Your task to perform on an android device: turn off notifications settings in the gmail app Image 0: 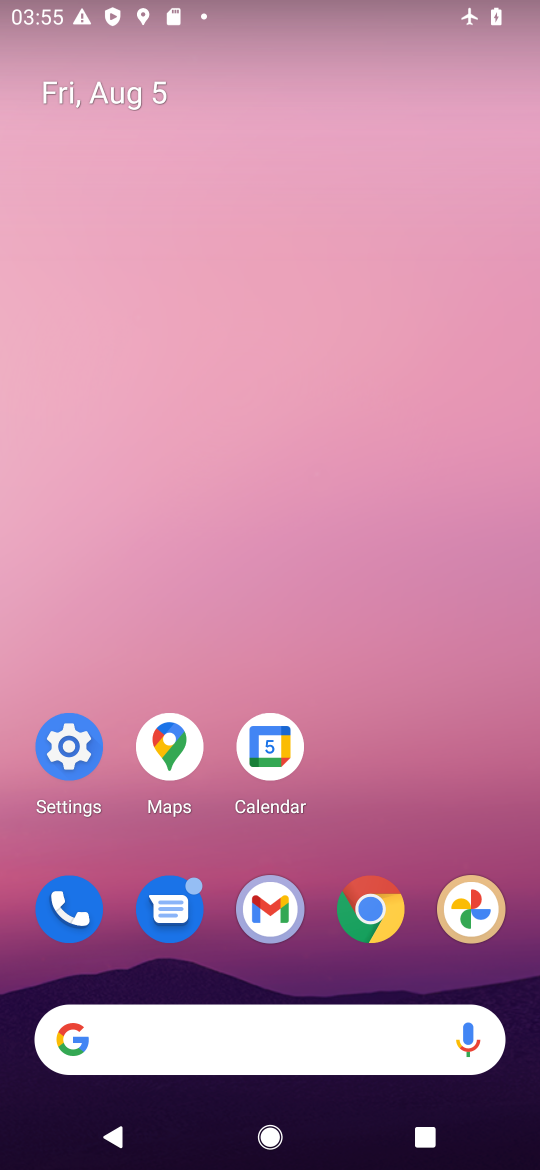
Step 0: click (272, 911)
Your task to perform on an android device: turn off notifications settings in the gmail app Image 1: 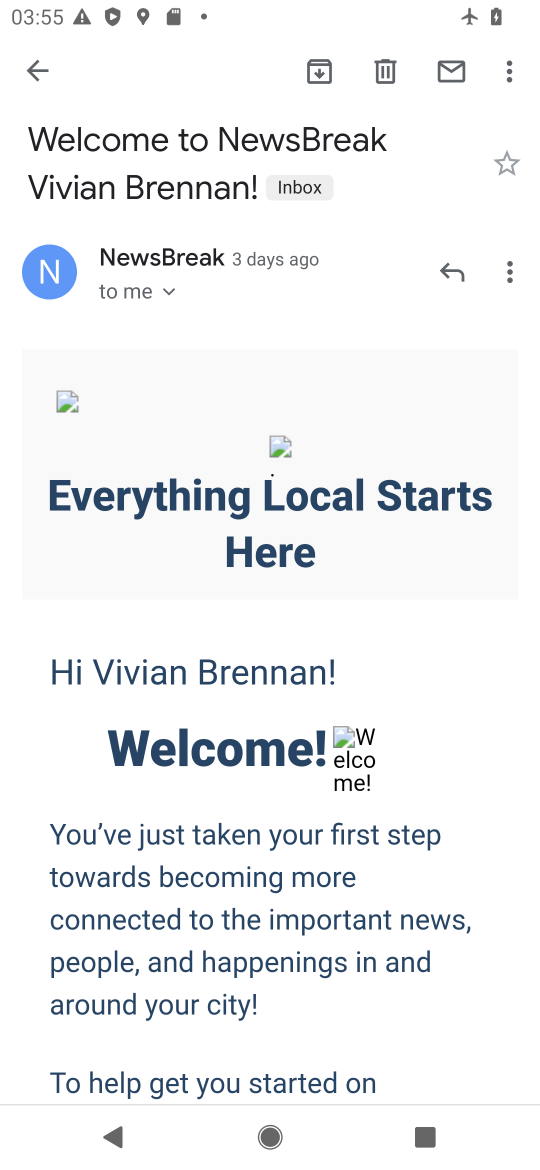
Step 1: click (33, 68)
Your task to perform on an android device: turn off notifications settings in the gmail app Image 2: 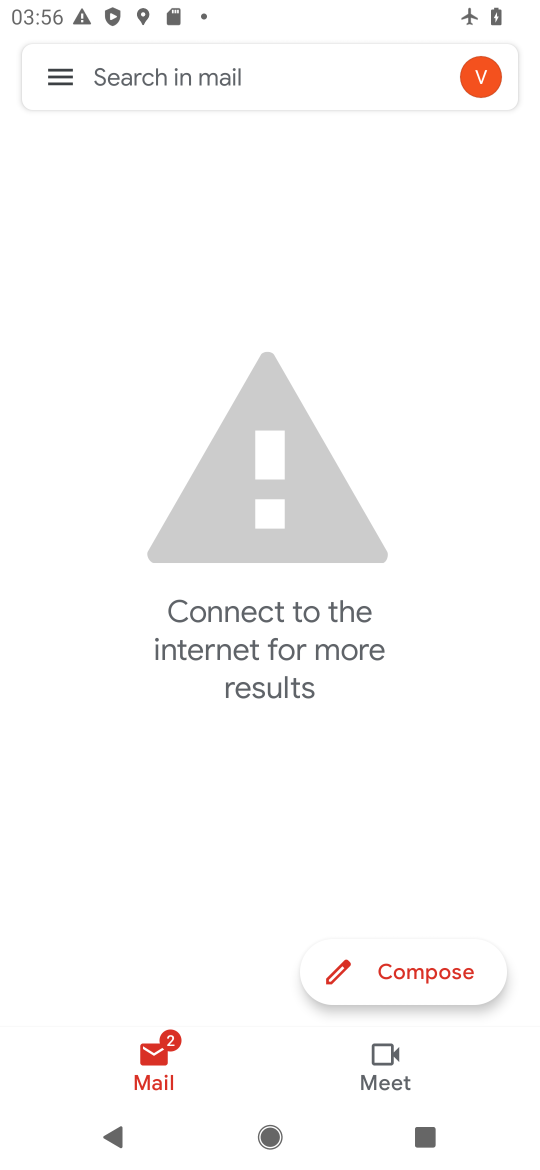
Step 2: click (65, 76)
Your task to perform on an android device: turn off notifications settings in the gmail app Image 3: 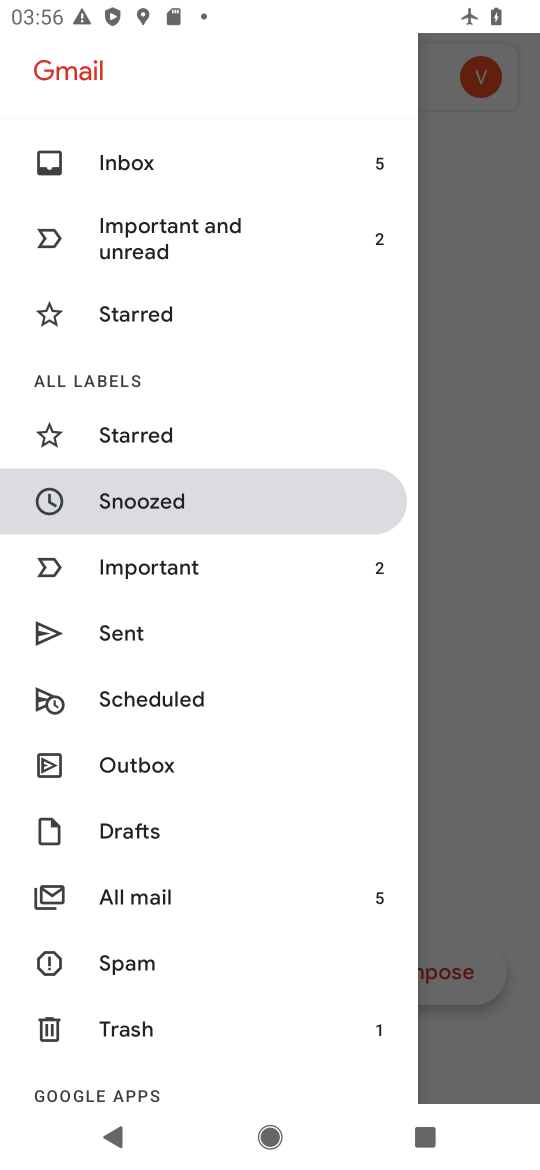
Step 3: drag from (175, 978) to (154, 537)
Your task to perform on an android device: turn off notifications settings in the gmail app Image 4: 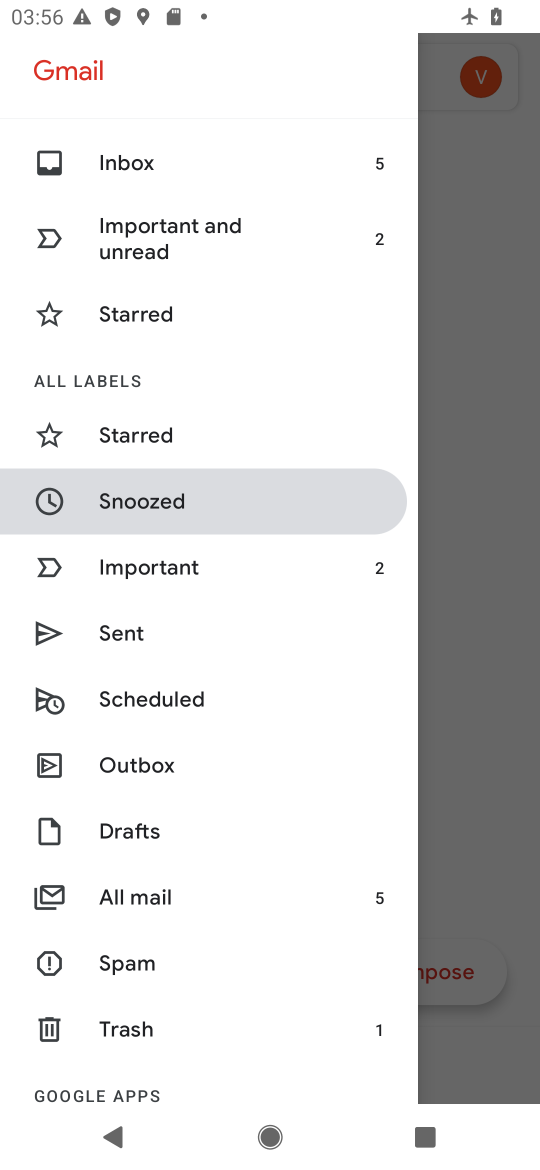
Step 4: drag from (226, 1004) to (289, 422)
Your task to perform on an android device: turn off notifications settings in the gmail app Image 5: 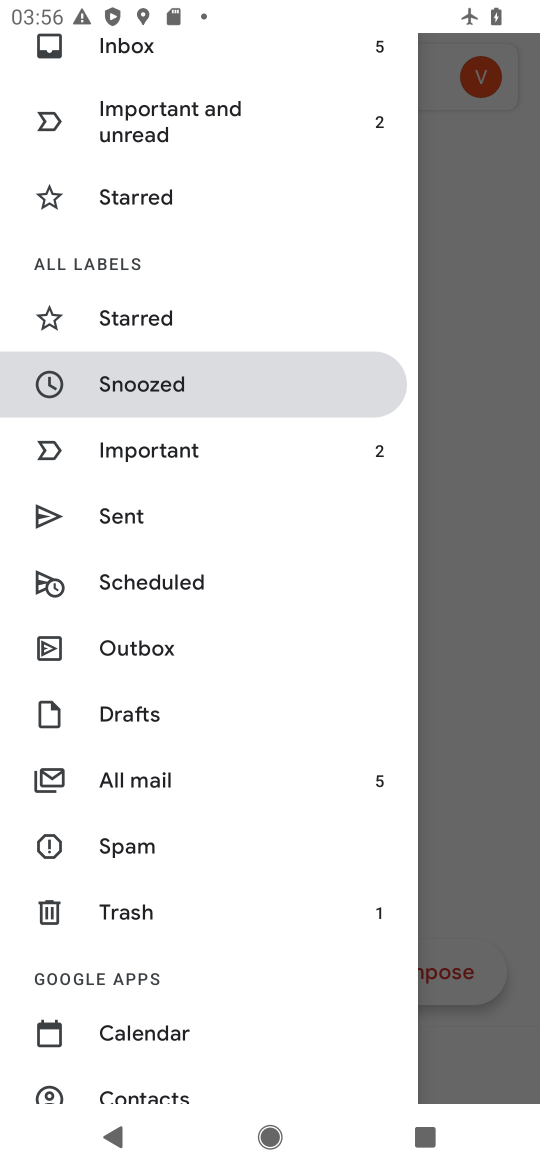
Step 5: drag from (222, 995) to (222, 220)
Your task to perform on an android device: turn off notifications settings in the gmail app Image 6: 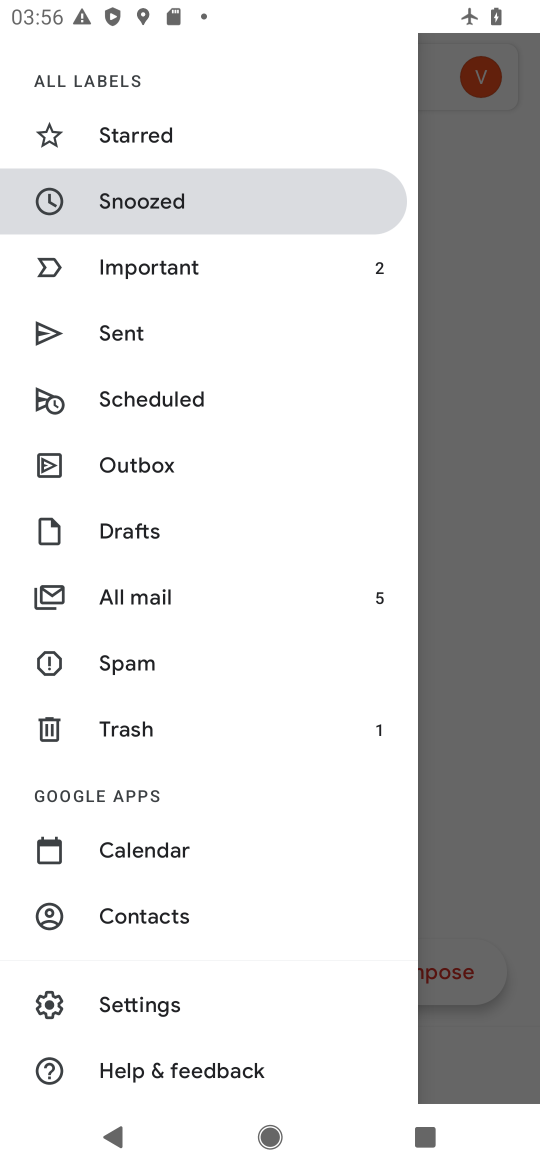
Step 6: click (136, 995)
Your task to perform on an android device: turn off notifications settings in the gmail app Image 7: 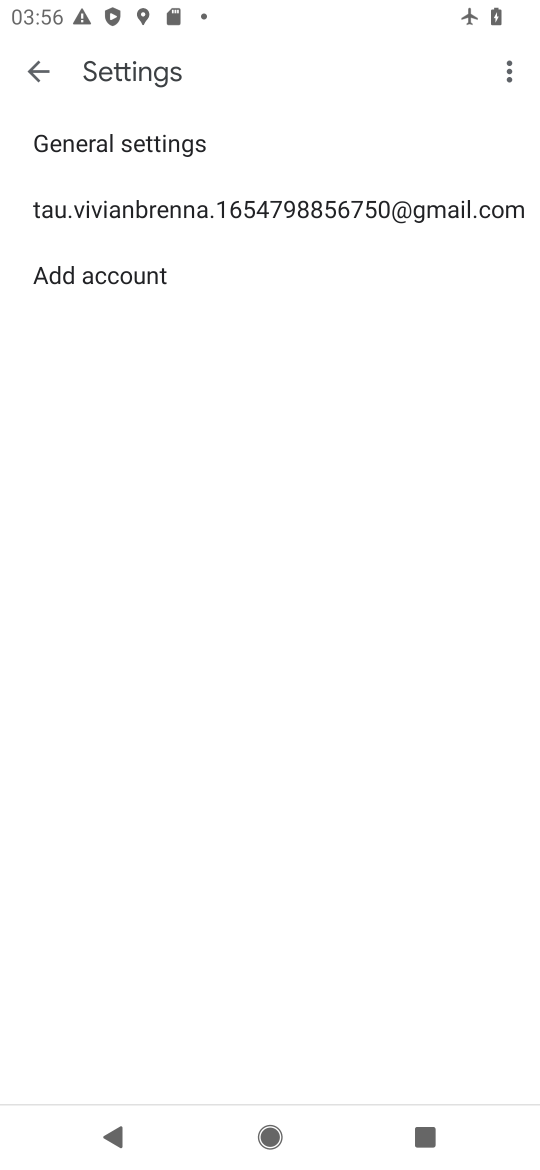
Step 7: click (181, 212)
Your task to perform on an android device: turn off notifications settings in the gmail app Image 8: 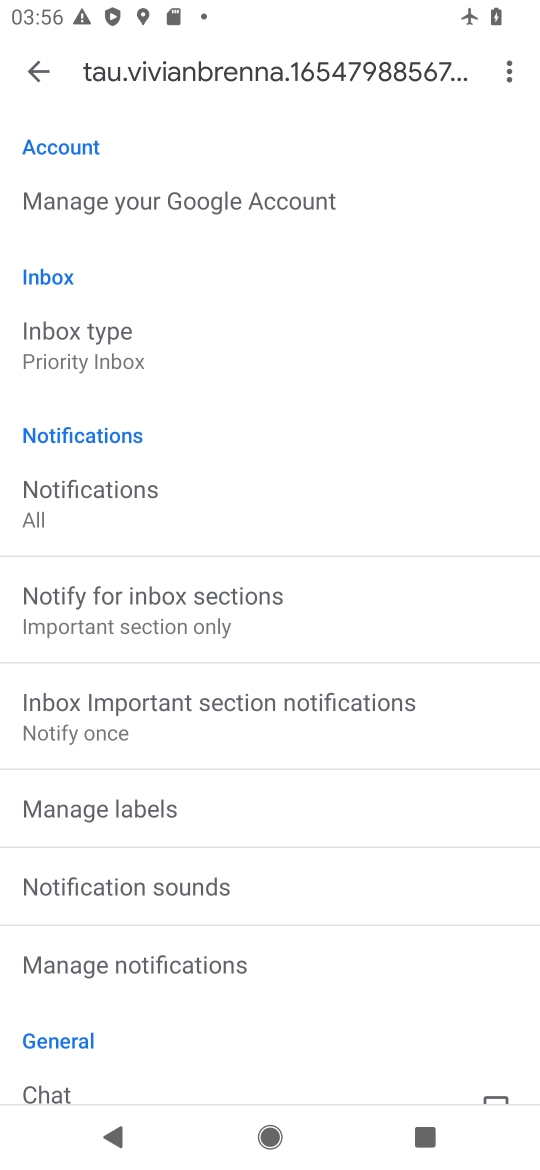
Step 8: click (35, 62)
Your task to perform on an android device: turn off notifications settings in the gmail app Image 9: 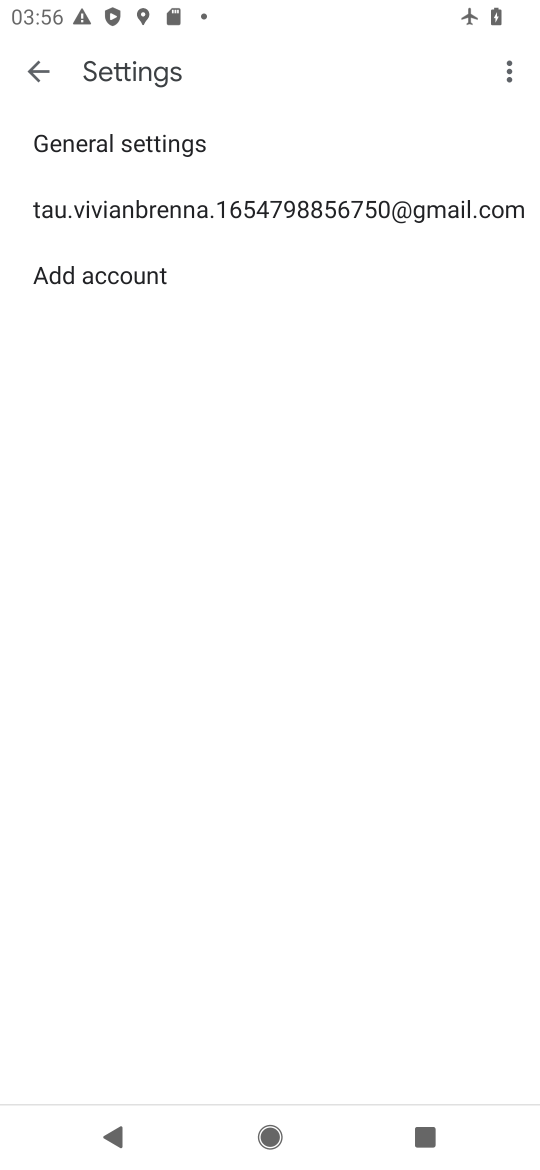
Step 9: click (105, 142)
Your task to perform on an android device: turn off notifications settings in the gmail app Image 10: 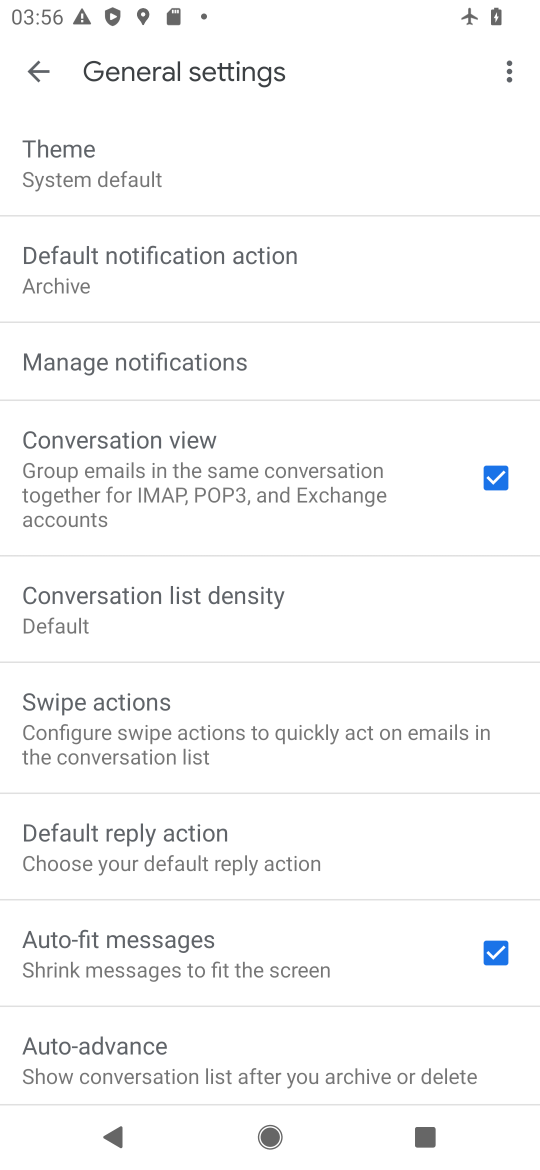
Step 10: click (124, 359)
Your task to perform on an android device: turn off notifications settings in the gmail app Image 11: 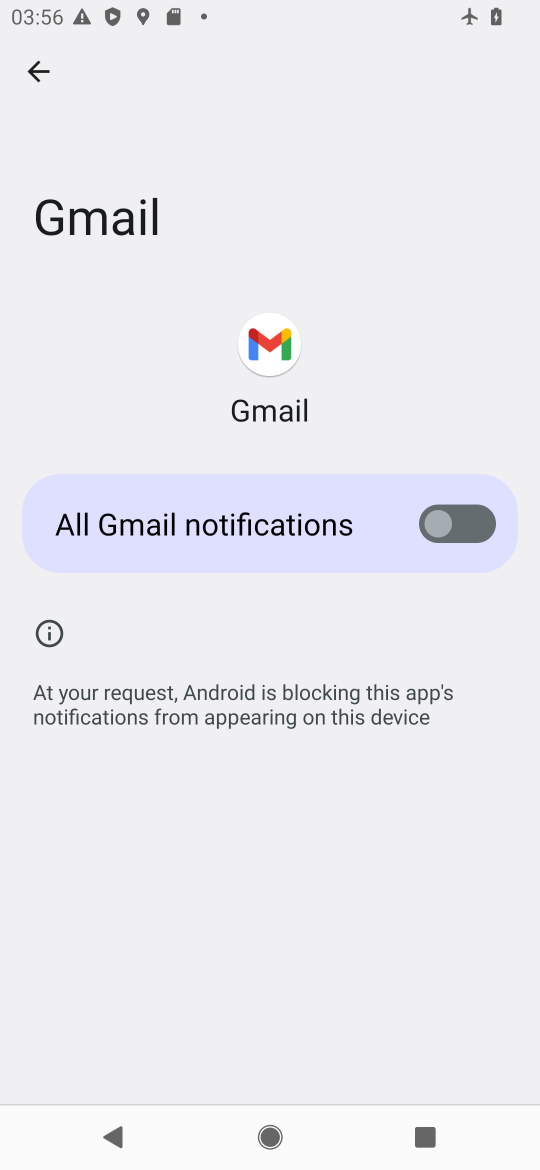
Step 11: task complete